Your task to perform on an android device: turn off sleep mode Image 0: 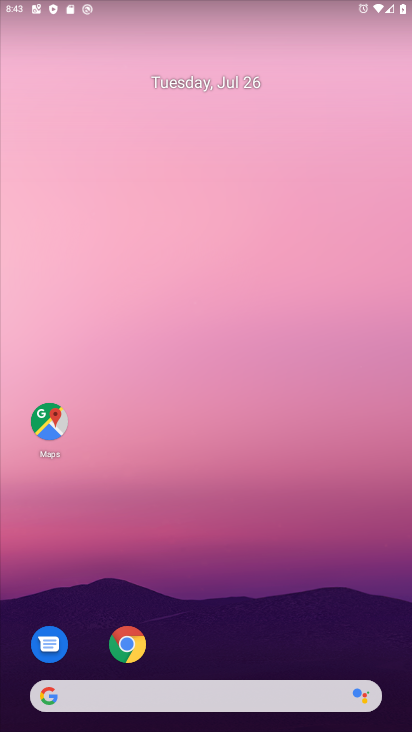
Step 0: drag from (281, 647) to (273, 237)
Your task to perform on an android device: turn off sleep mode Image 1: 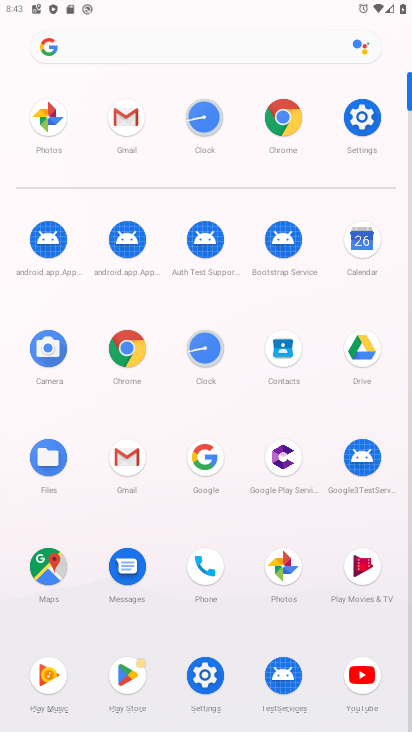
Step 1: click (356, 114)
Your task to perform on an android device: turn off sleep mode Image 2: 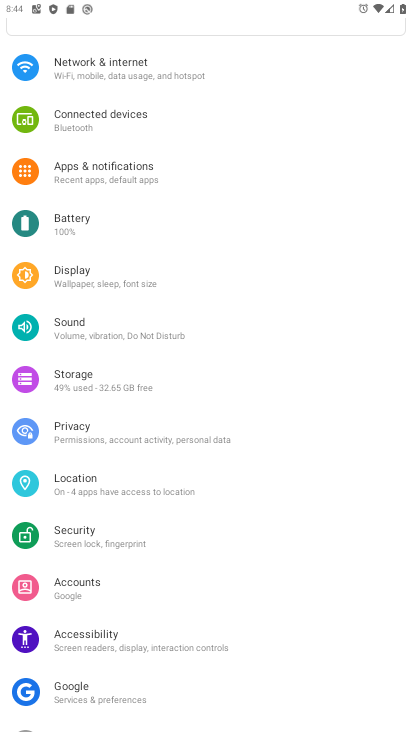
Step 2: task complete